Your task to perform on an android device: When is my next appointment? Image 0: 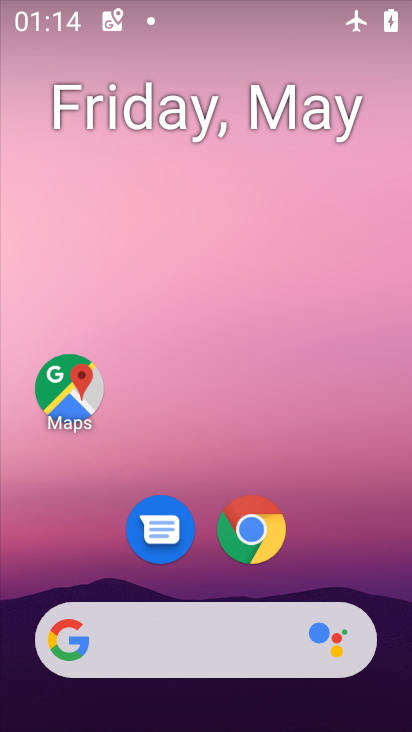
Step 0: drag from (308, 439) to (287, 159)
Your task to perform on an android device: When is my next appointment? Image 1: 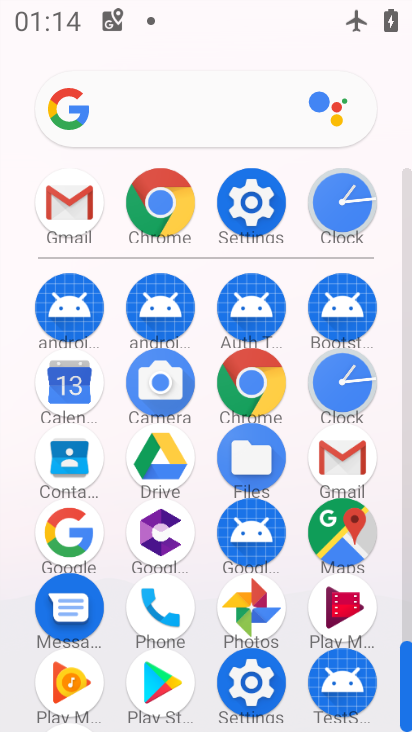
Step 1: drag from (183, 593) to (202, 253)
Your task to perform on an android device: When is my next appointment? Image 2: 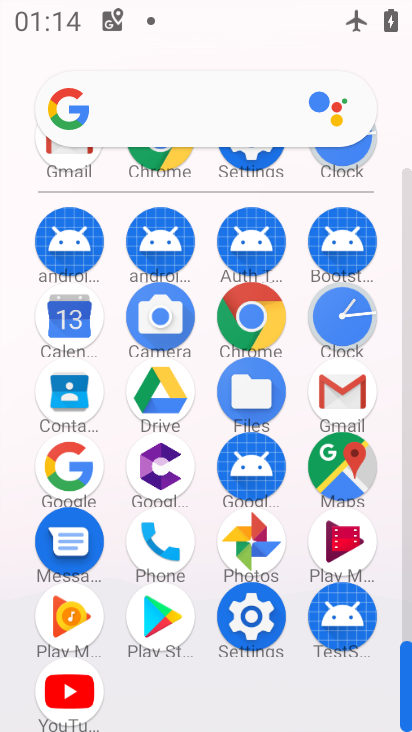
Step 2: click (61, 308)
Your task to perform on an android device: When is my next appointment? Image 3: 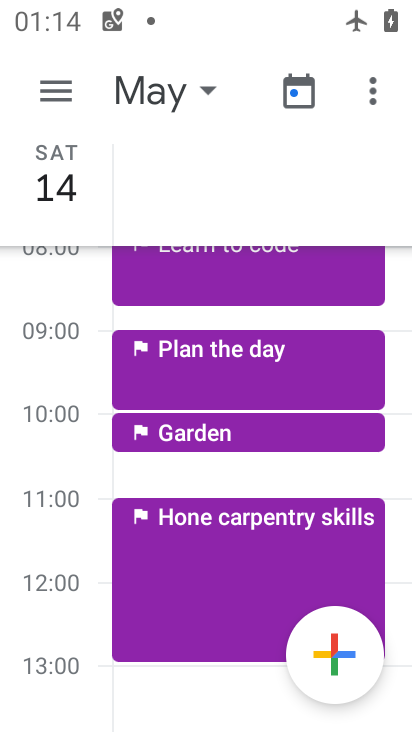
Step 3: click (43, 91)
Your task to perform on an android device: When is my next appointment? Image 4: 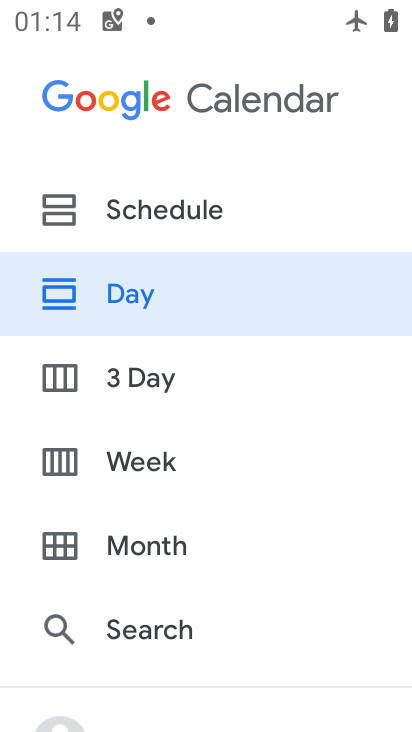
Step 4: click (101, 296)
Your task to perform on an android device: When is my next appointment? Image 5: 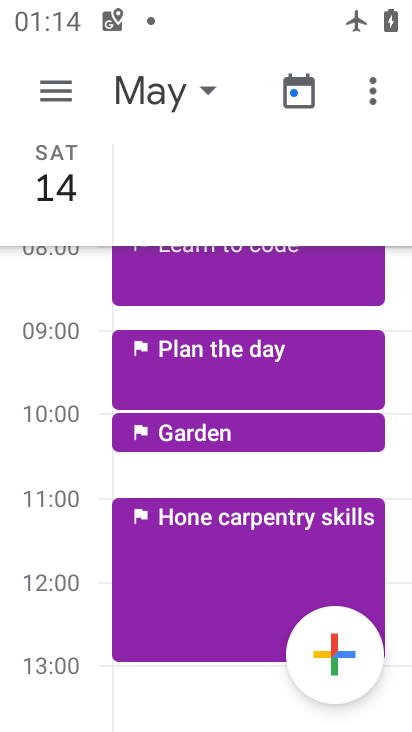
Step 5: task complete